Your task to perform on an android device: Search for "macbook" on costco.com, select the first entry, and add it to the cart. Image 0: 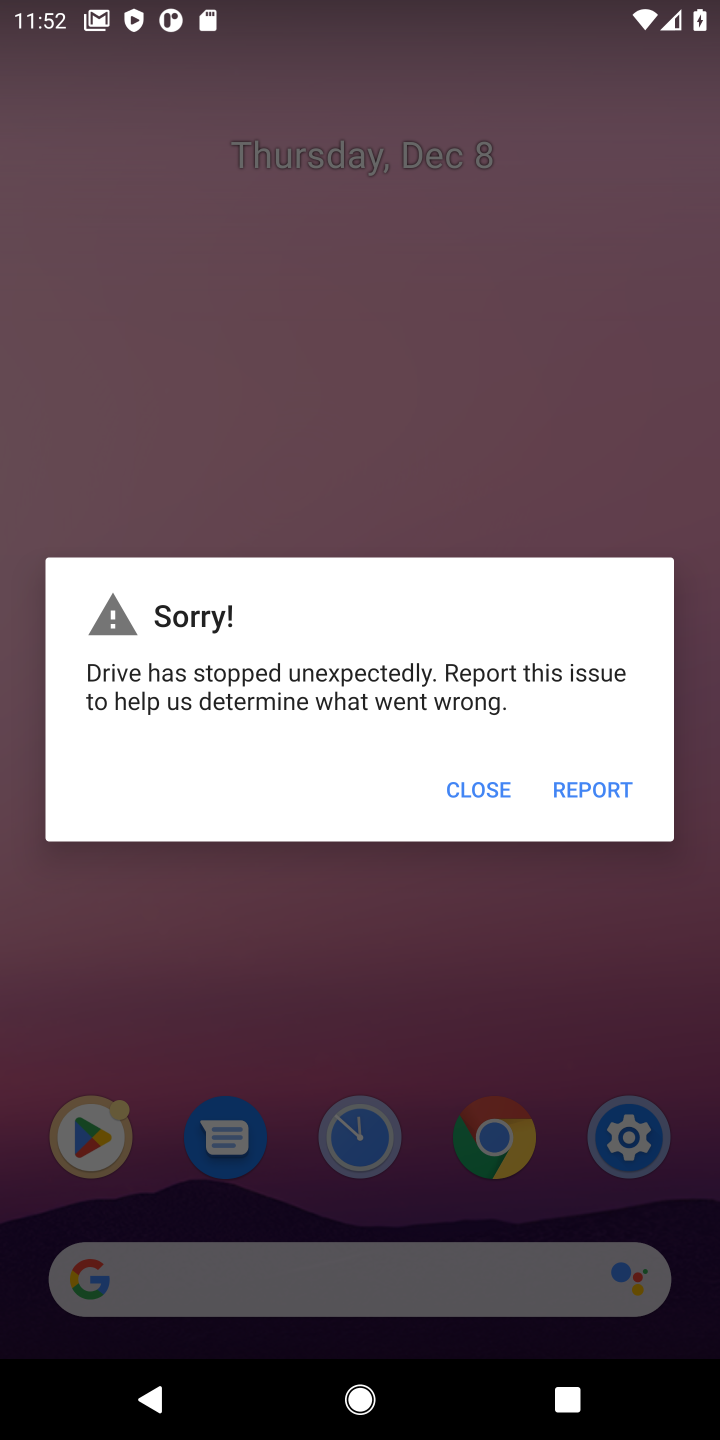
Step 0: click (512, 797)
Your task to perform on an android device: Search for "macbook" on costco.com, select the first entry, and add it to the cart. Image 1: 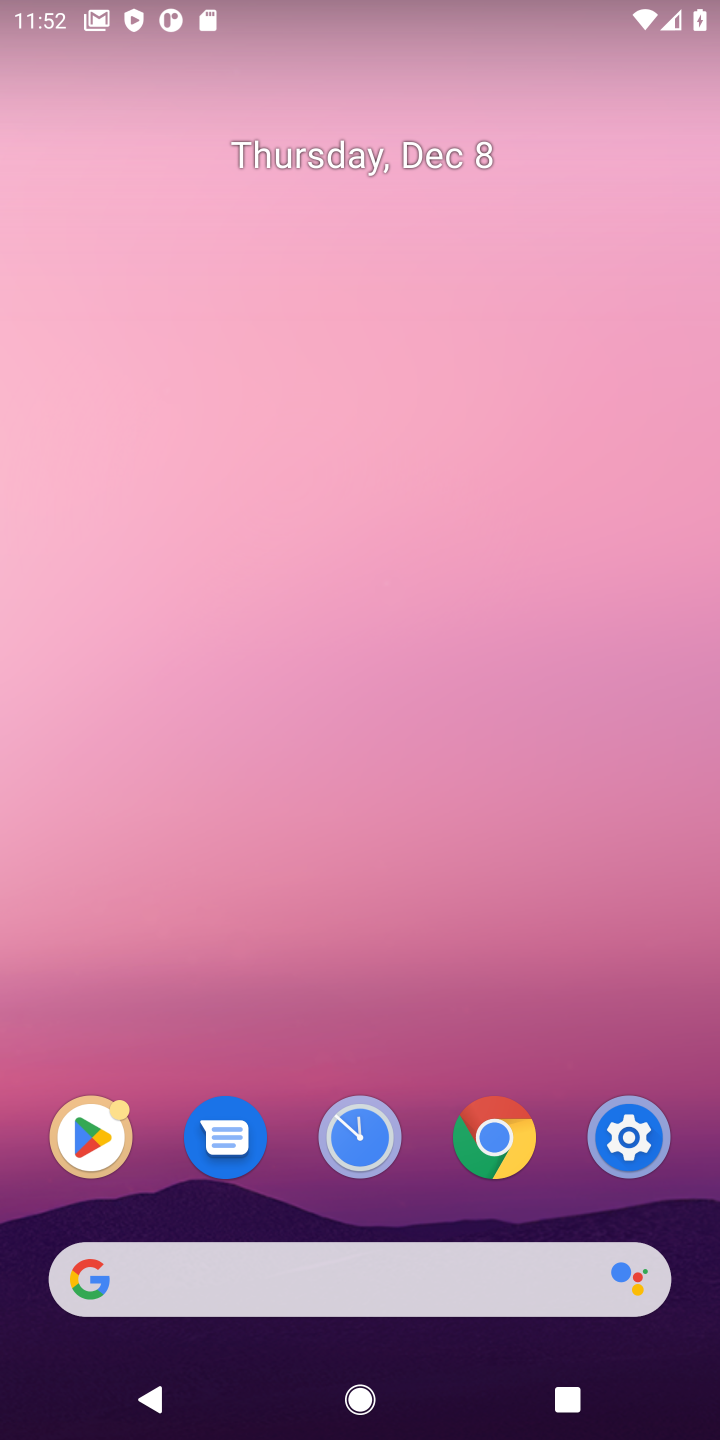
Step 1: click (247, 1303)
Your task to perform on an android device: Search for "macbook" on costco.com, select the first entry, and add it to the cart. Image 2: 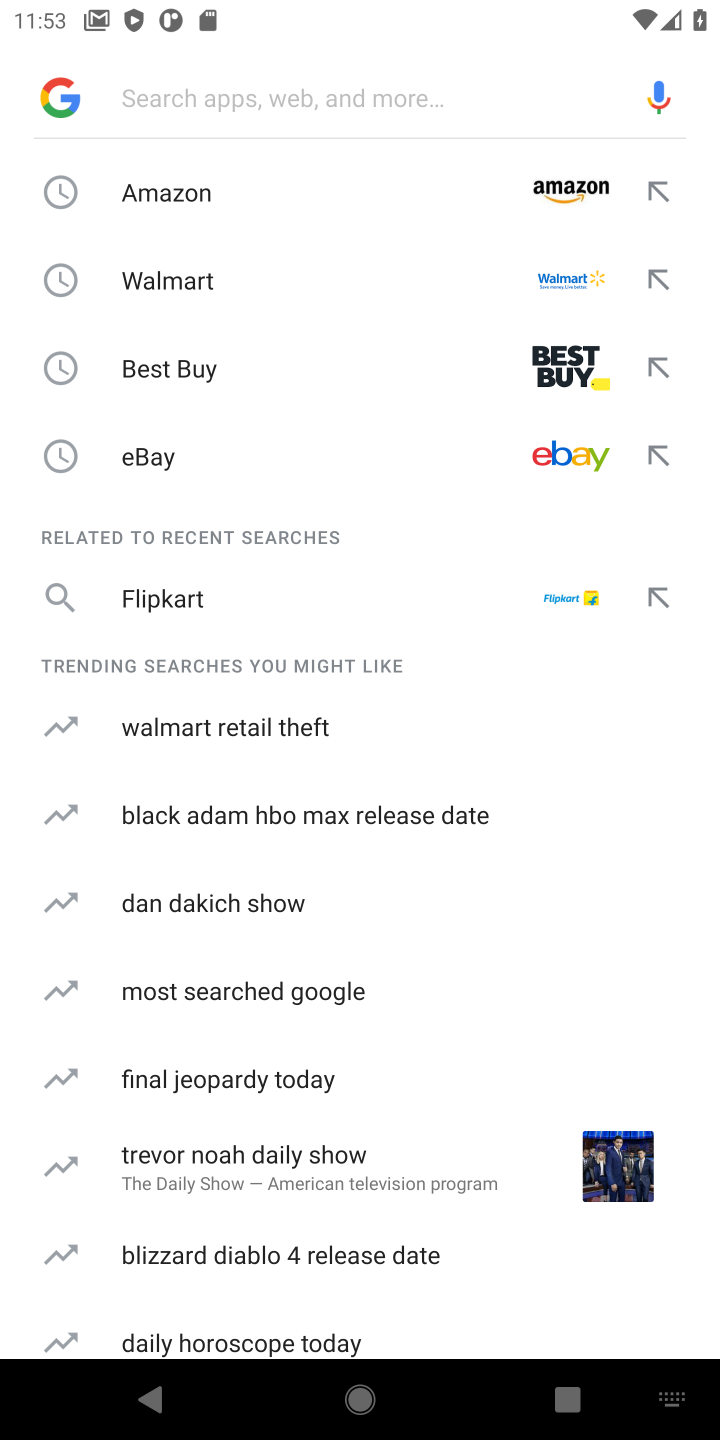
Step 2: type "costco.com"
Your task to perform on an android device: Search for "macbook" on costco.com, select the first entry, and add it to the cart. Image 3: 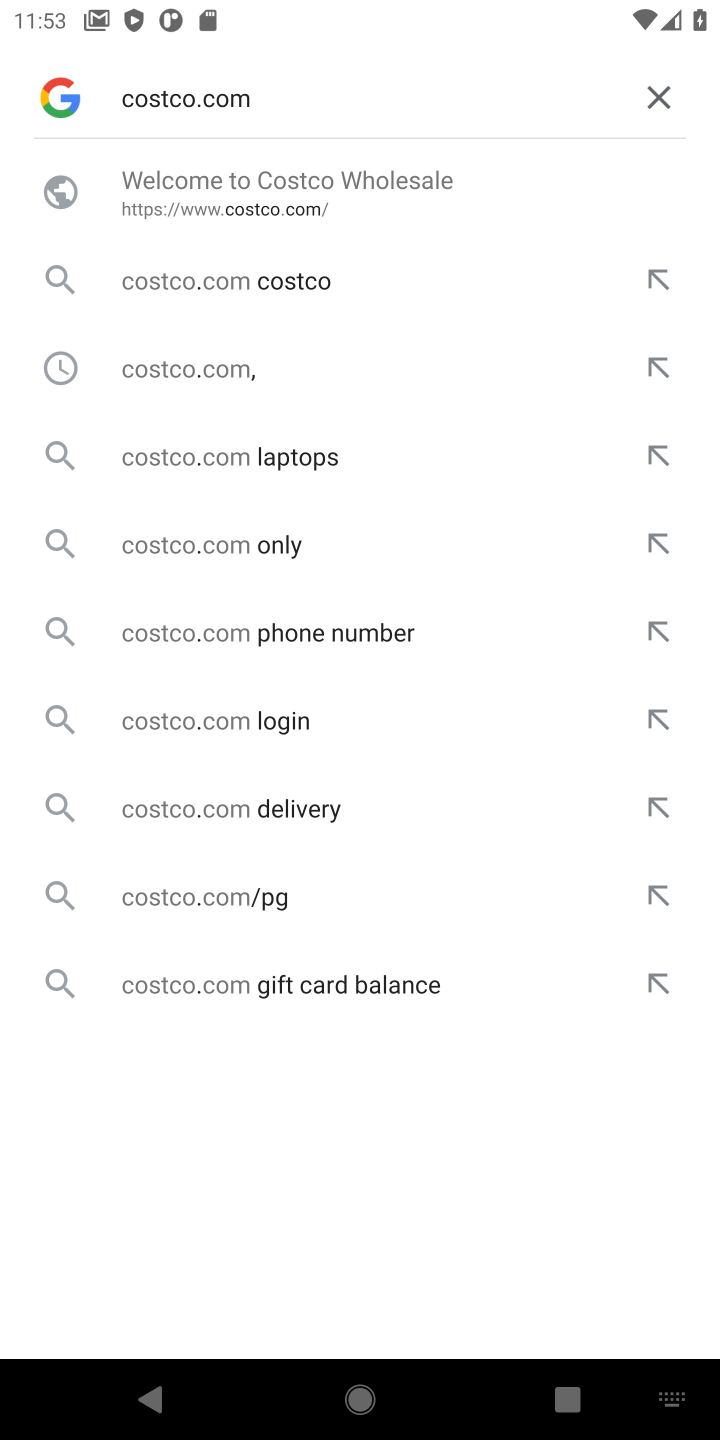
Step 3: click (392, 190)
Your task to perform on an android device: Search for "macbook" on costco.com, select the first entry, and add it to the cart. Image 4: 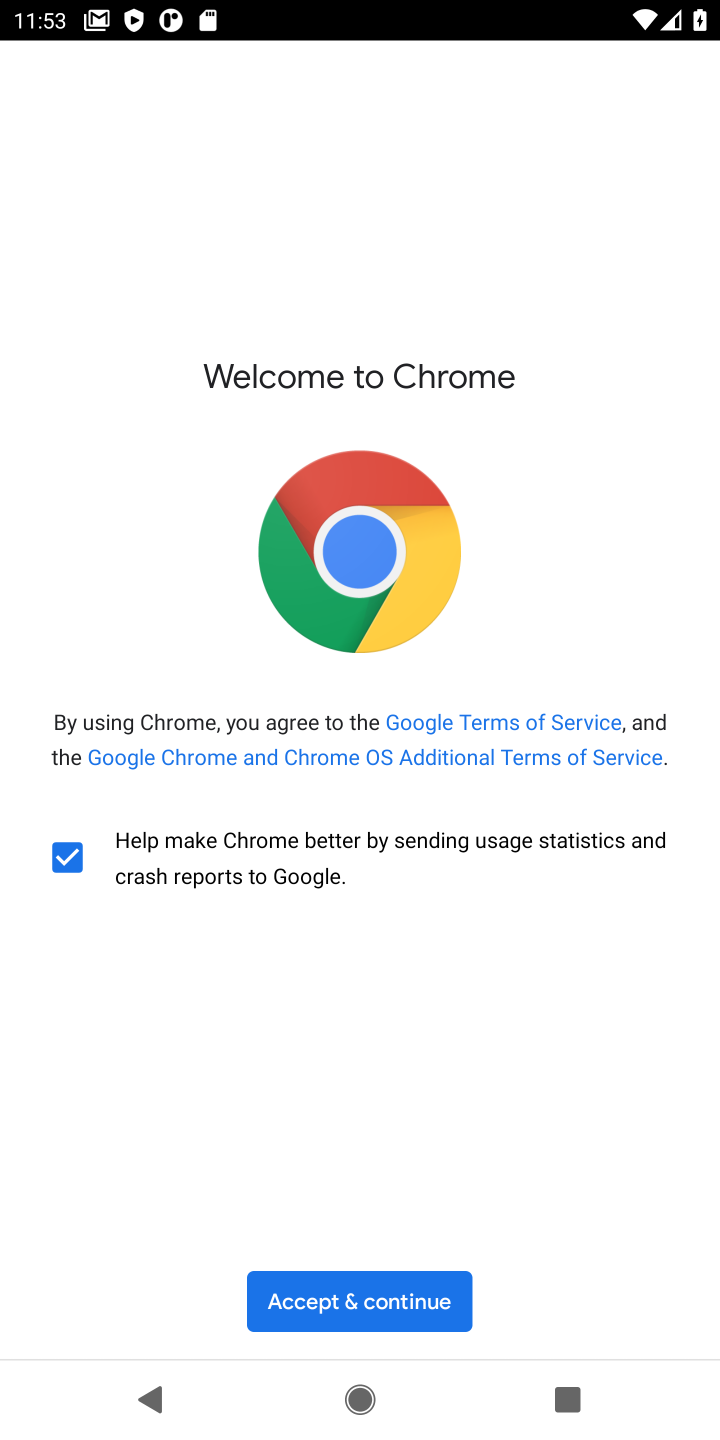
Step 4: click (338, 1331)
Your task to perform on an android device: Search for "macbook" on costco.com, select the first entry, and add it to the cart. Image 5: 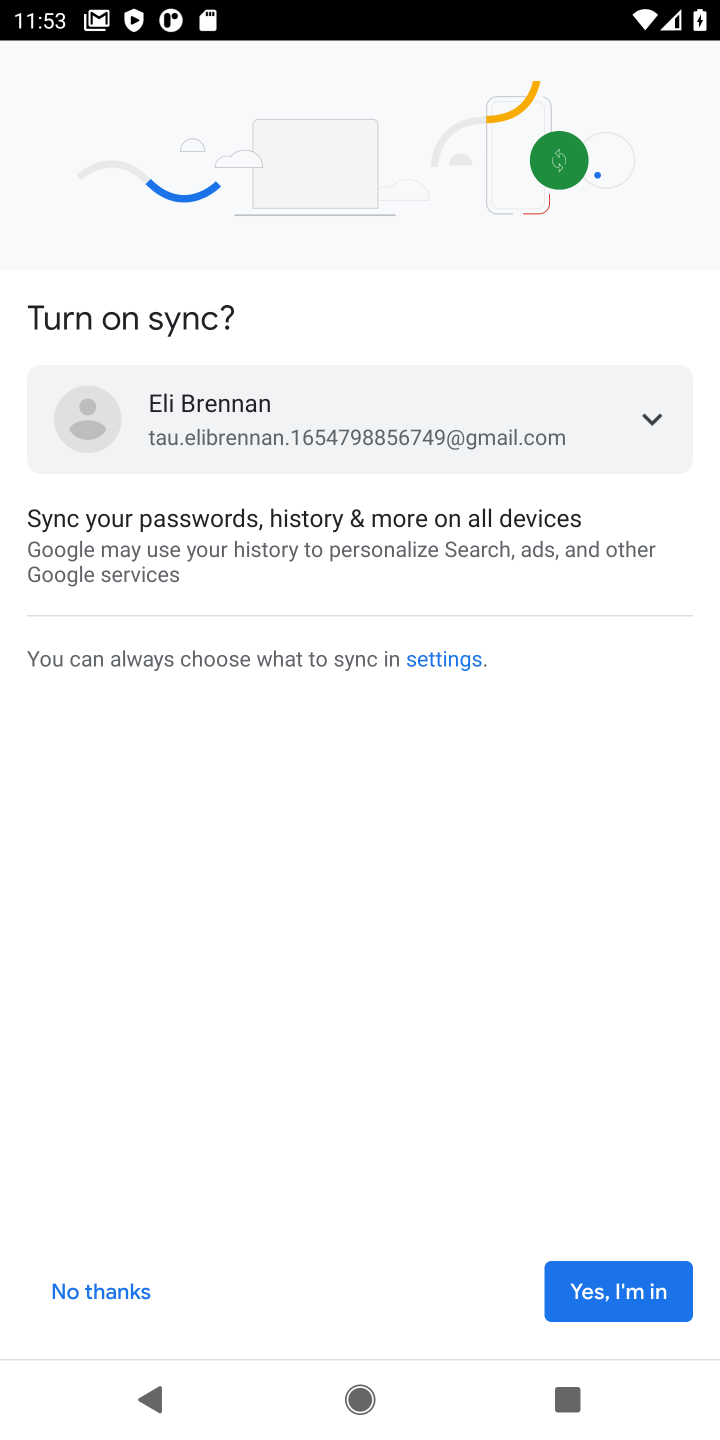
Step 5: click (612, 1298)
Your task to perform on an android device: Search for "macbook" on costco.com, select the first entry, and add it to the cart. Image 6: 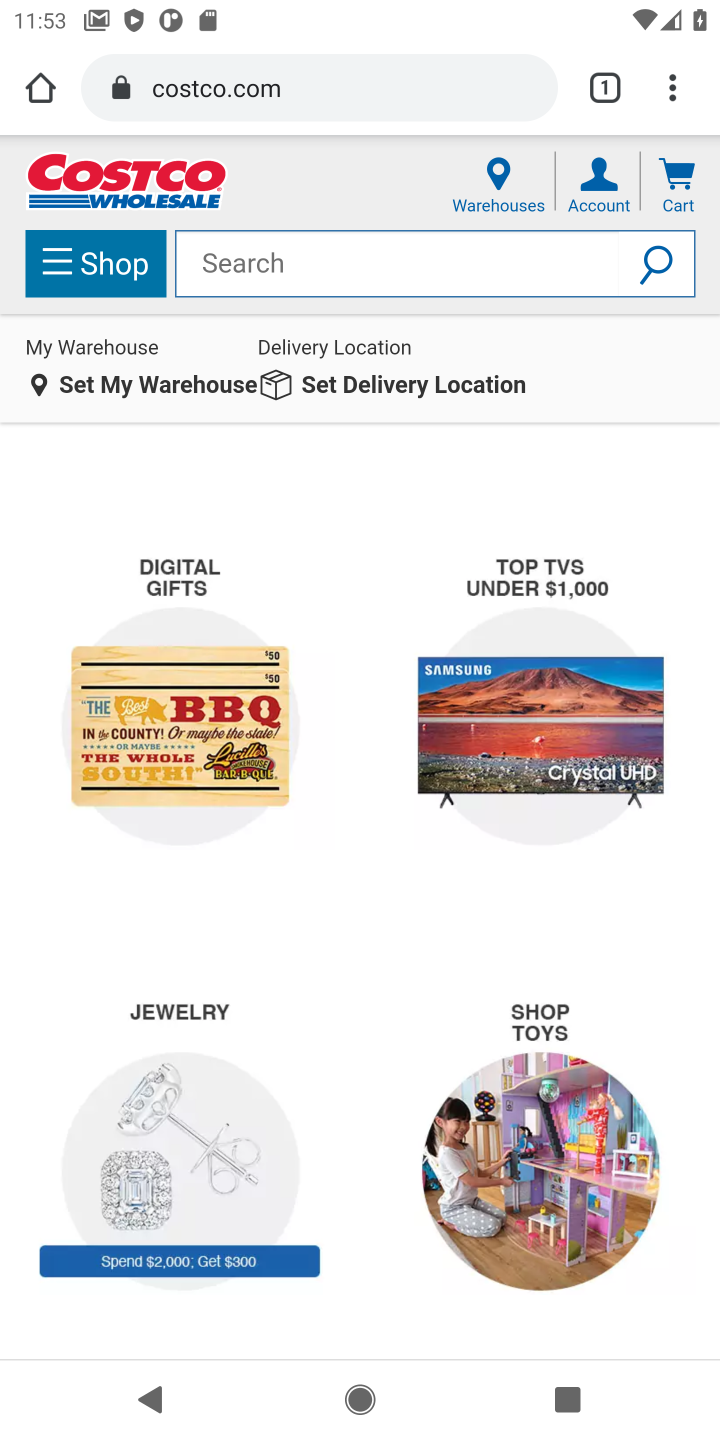
Step 6: click (259, 251)
Your task to perform on an android device: Search for "macbook" on costco.com, select the first entry, and add it to the cart. Image 7: 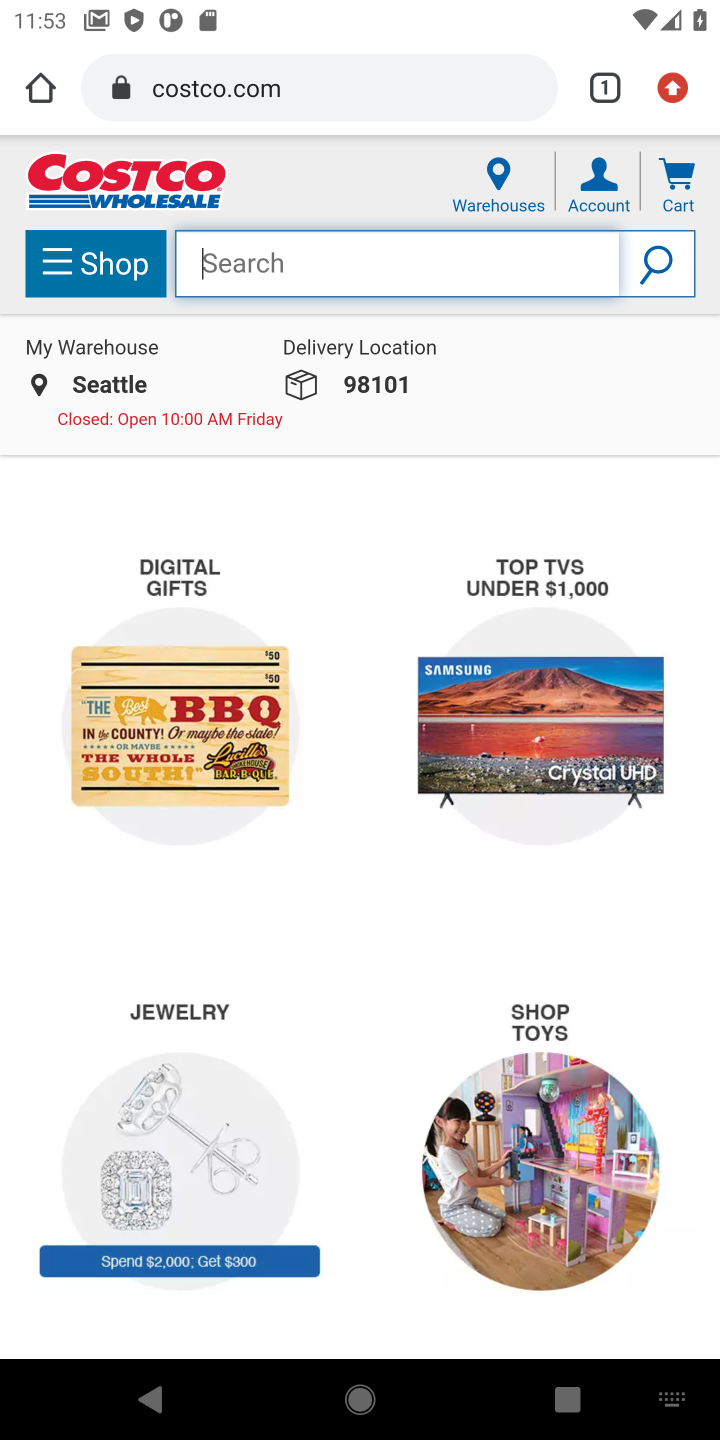
Step 7: type "macbook"
Your task to perform on an android device: Search for "macbook" on costco.com, select the first entry, and add it to the cart. Image 8: 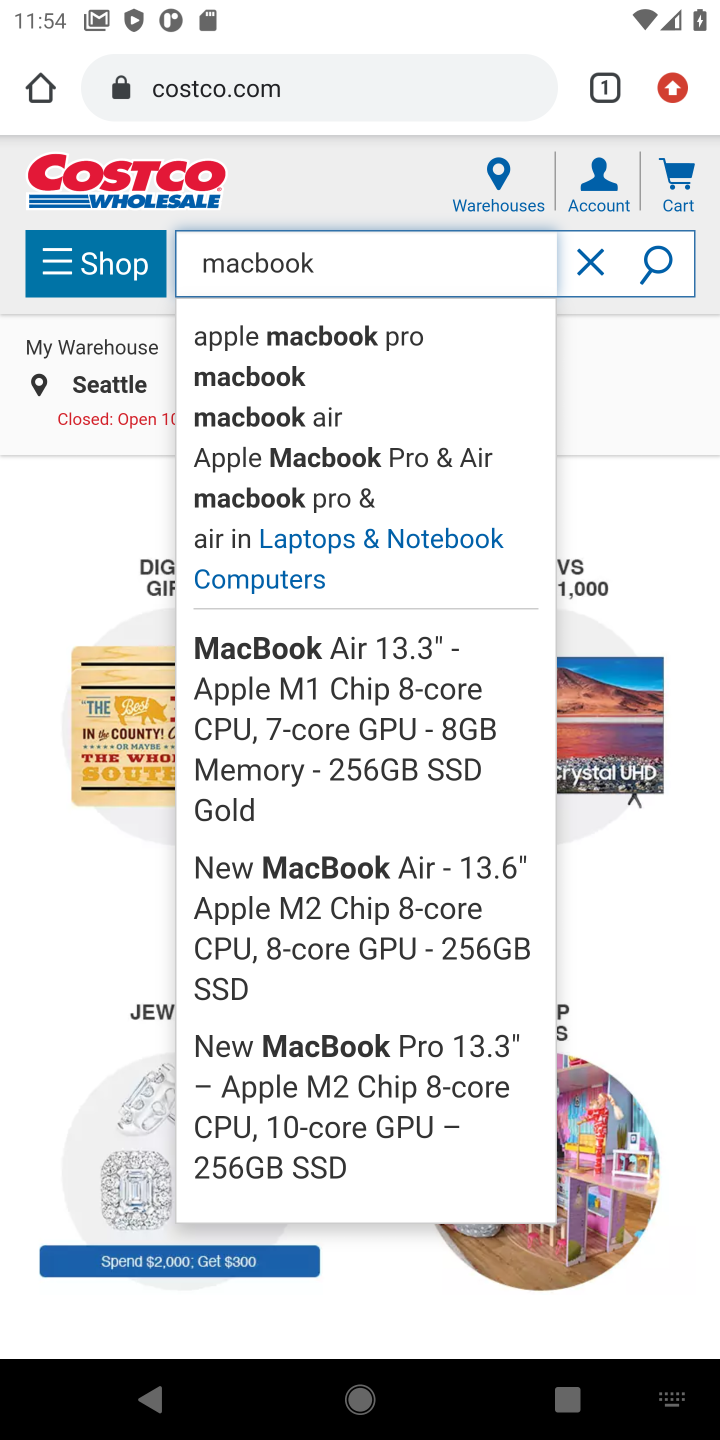
Step 8: click (651, 274)
Your task to perform on an android device: Search for "macbook" on costco.com, select the first entry, and add it to the cart. Image 9: 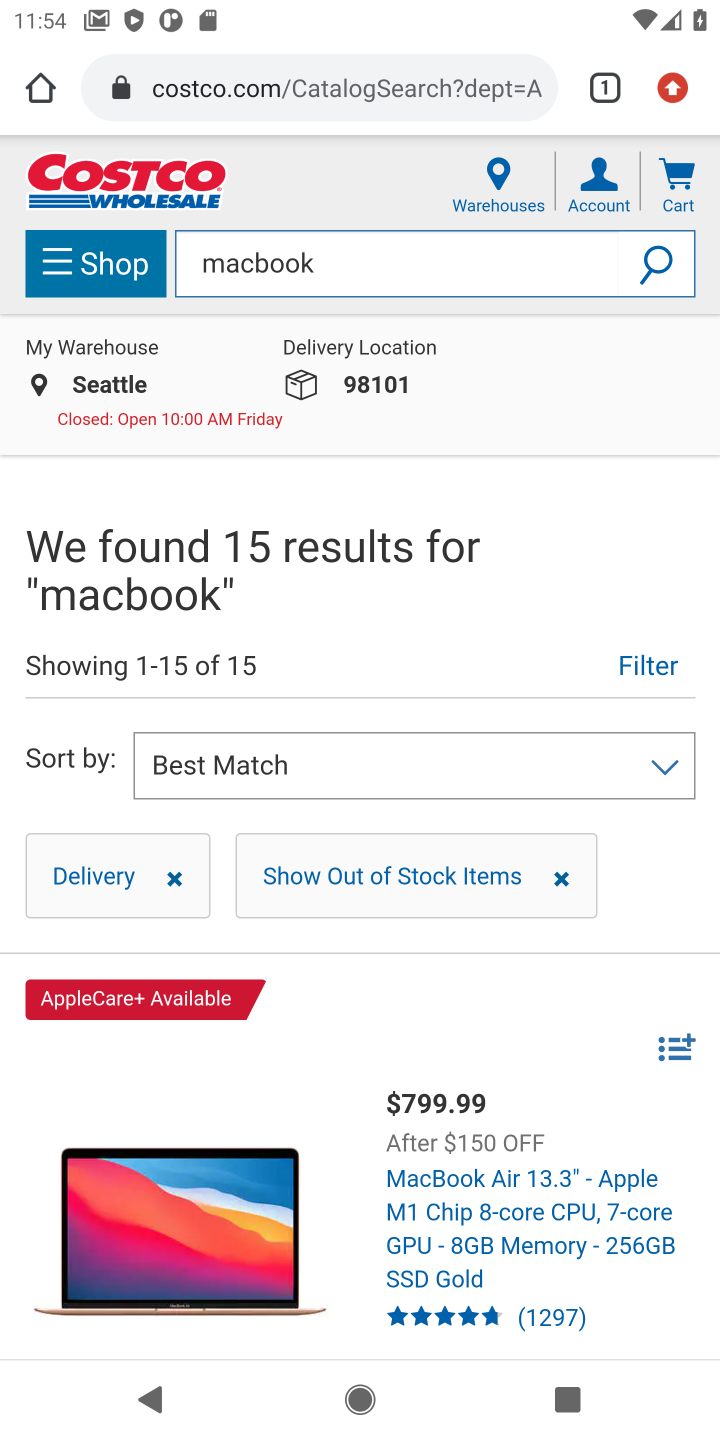
Step 9: click (373, 1218)
Your task to perform on an android device: Search for "macbook" on costco.com, select the first entry, and add it to the cart. Image 10: 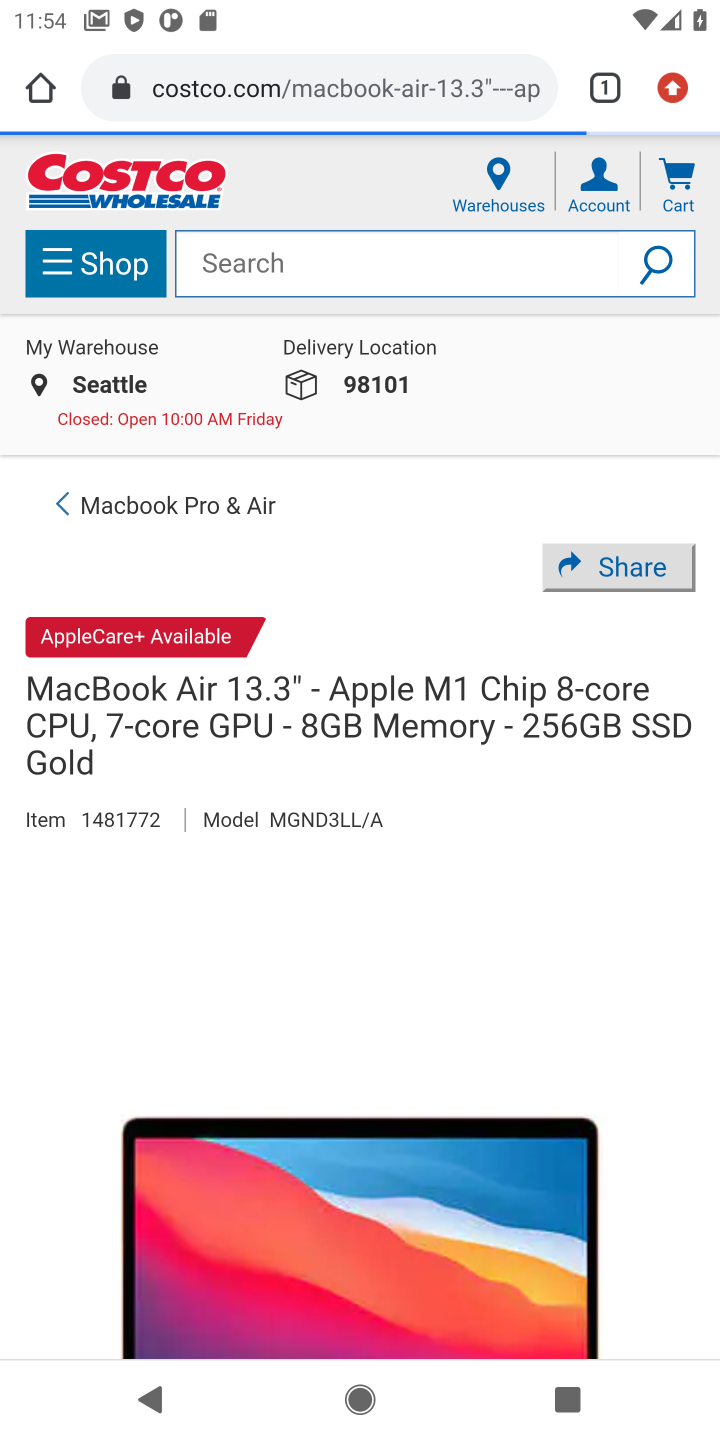
Step 10: drag from (457, 1238) to (223, 16)
Your task to perform on an android device: Search for "macbook" on costco.com, select the first entry, and add it to the cart. Image 11: 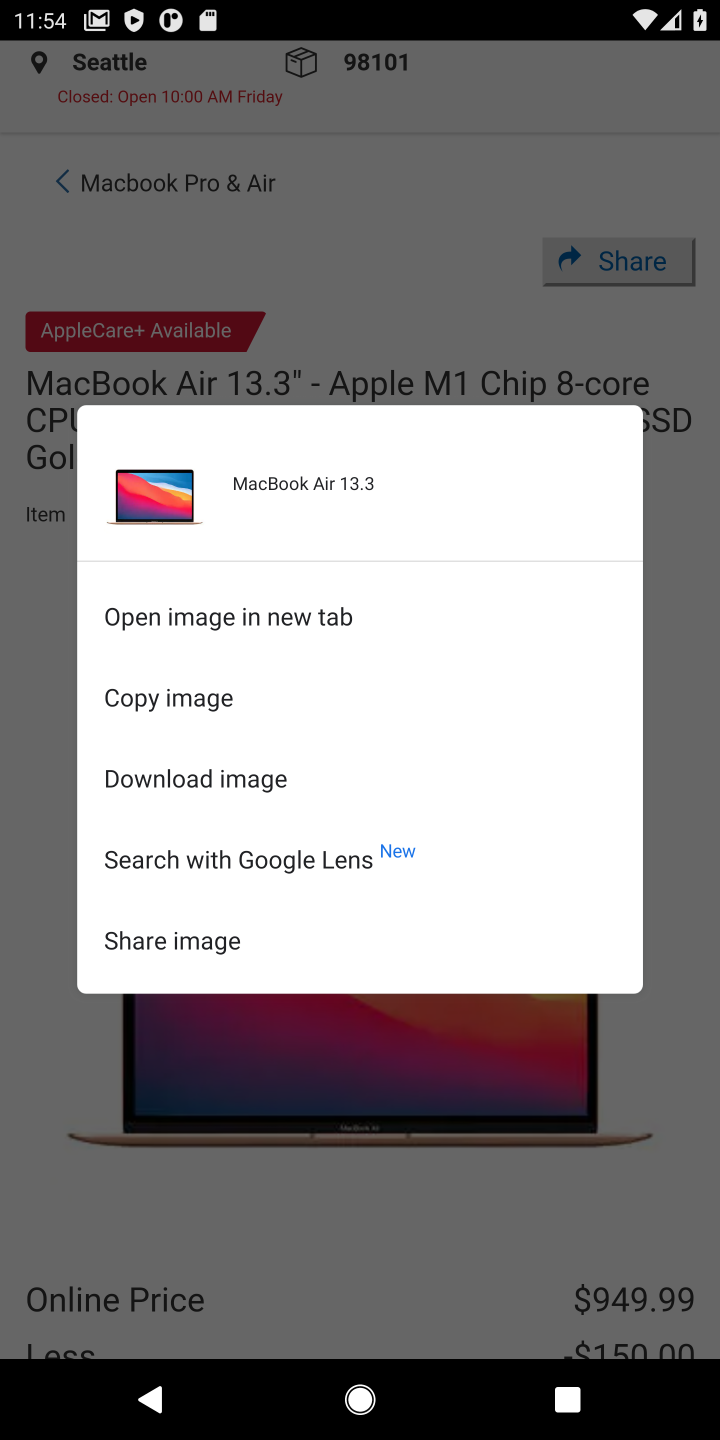
Step 11: click (386, 1011)
Your task to perform on an android device: Search for "macbook" on costco.com, select the first entry, and add it to the cart. Image 12: 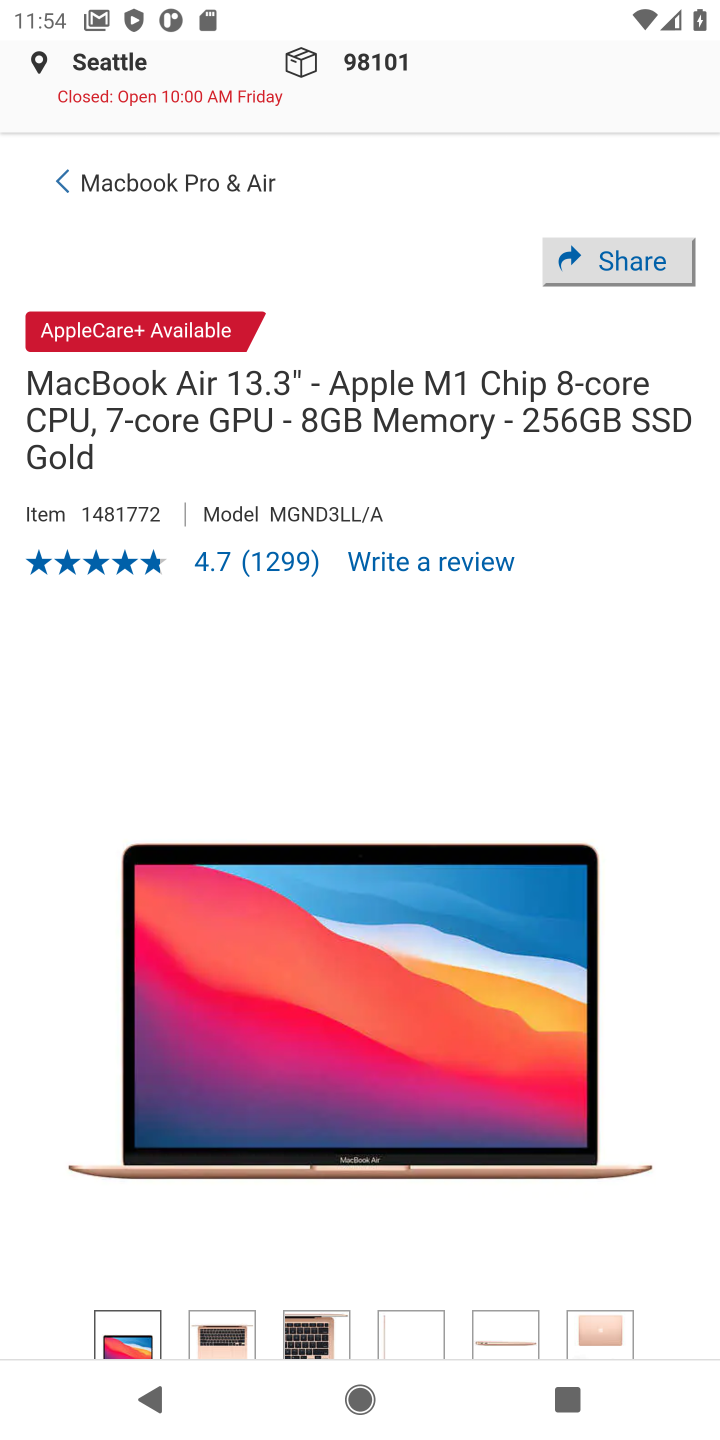
Step 12: task complete